Your task to perform on an android device: turn off airplane mode Image 0: 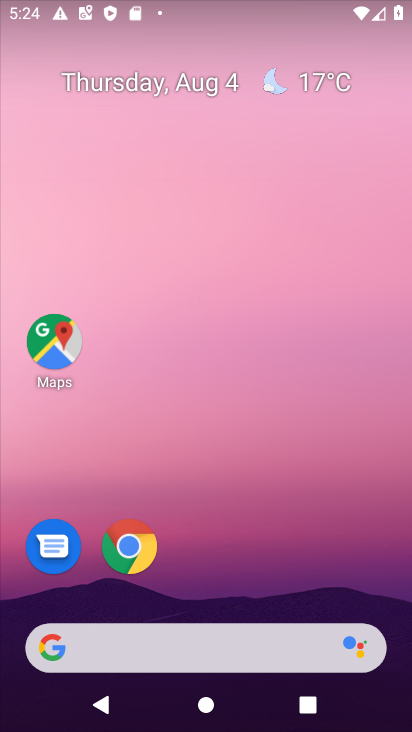
Step 0: drag from (257, 537) to (257, 275)
Your task to perform on an android device: turn off airplane mode Image 1: 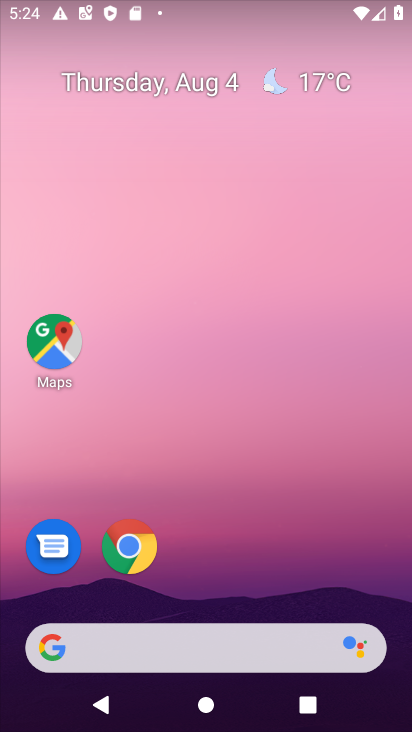
Step 1: click (207, 26)
Your task to perform on an android device: turn off airplane mode Image 2: 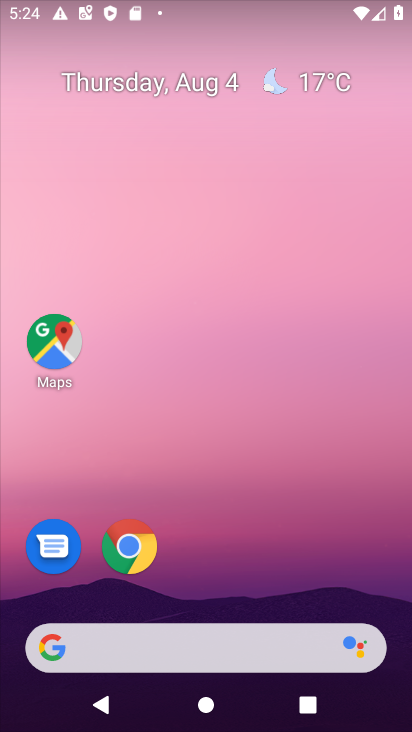
Step 2: drag from (219, 581) to (270, 34)
Your task to perform on an android device: turn off airplane mode Image 3: 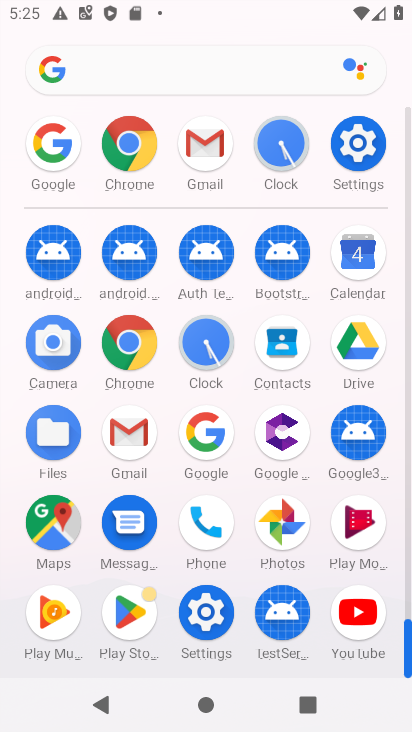
Step 3: click (358, 139)
Your task to perform on an android device: turn off airplane mode Image 4: 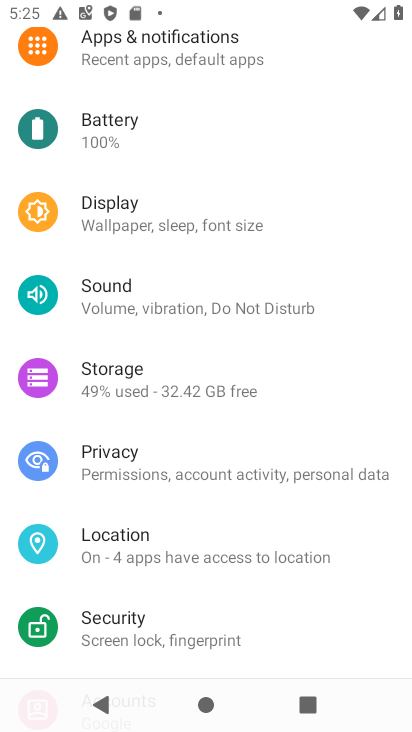
Step 4: drag from (156, 221) to (151, 447)
Your task to perform on an android device: turn off airplane mode Image 5: 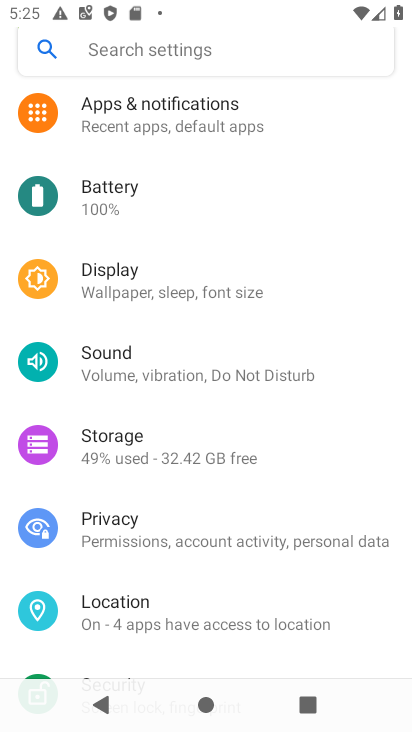
Step 5: drag from (186, 385) to (186, 595)
Your task to perform on an android device: turn off airplane mode Image 6: 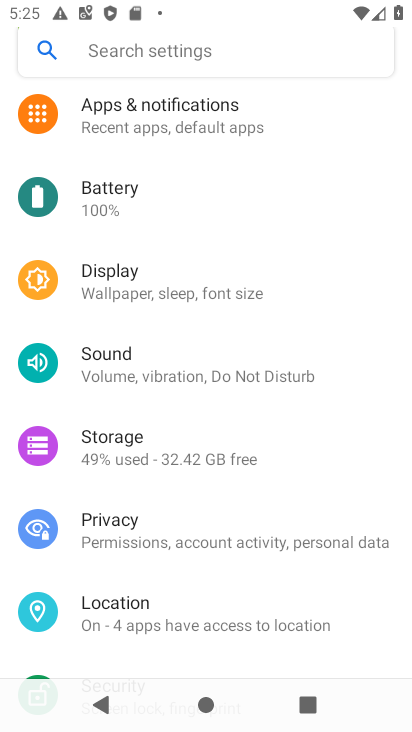
Step 6: drag from (168, 646) to (141, 731)
Your task to perform on an android device: turn off airplane mode Image 7: 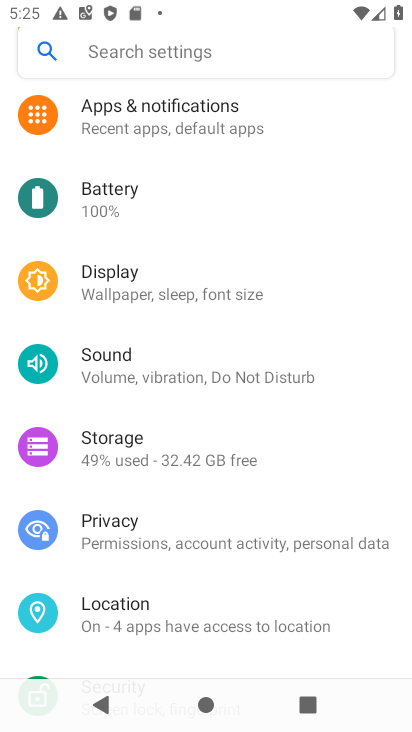
Step 7: drag from (176, 126) to (174, 660)
Your task to perform on an android device: turn off airplane mode Image 8: 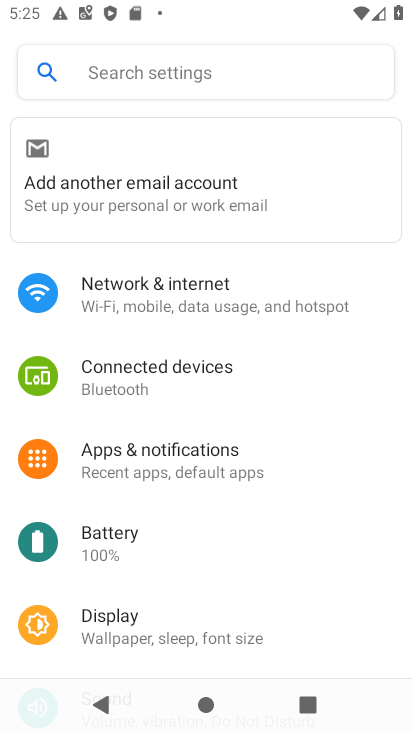
Step 8: click (189, 312)
Your task to perform on an android device: turn off airplane mode Image 9: 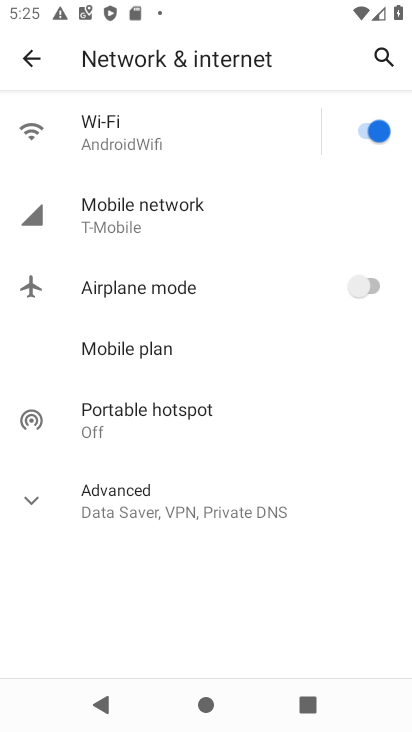
Step 9: task complete